Your task to perform on an android device: Open Android settings Image 0: 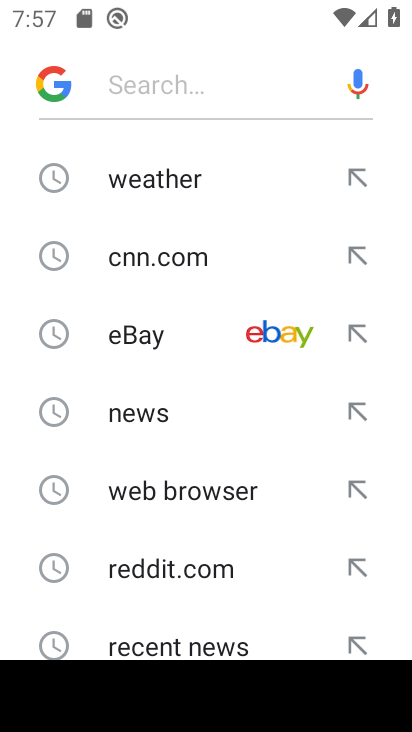
Step 0: press home button
Your task to perform on an android device: Open Android settings Image 1: 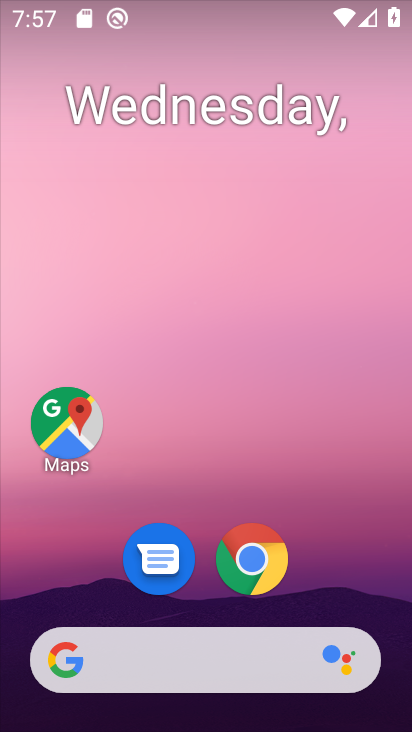
Step 1: drag from (341, 569) to (351, 89)
Your task to perform on an android device: Open Android settings Image 2: 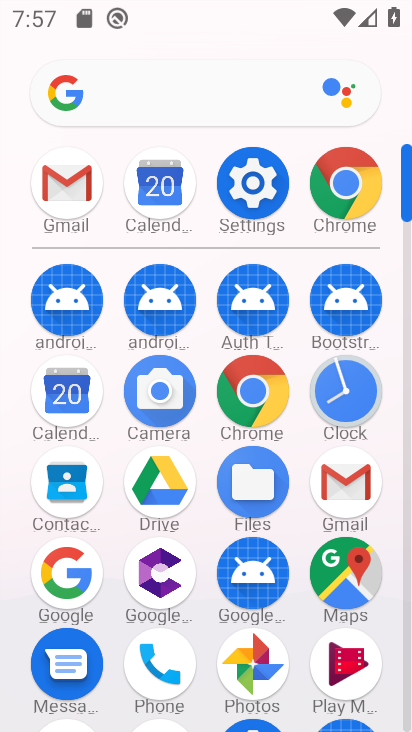
Step 2: click (252, 192)
Your task to perform on an android device: Open Android settings Image 3: 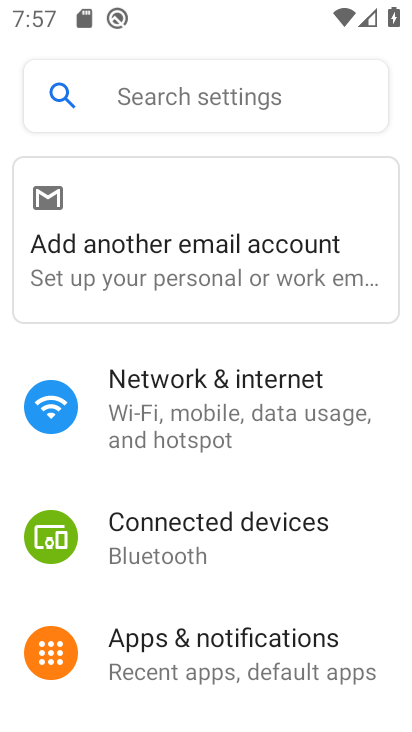
Step 3: drag from (363, 602) to (337, 185)
Your task to perform on an android device: Open Android settings Image 4: 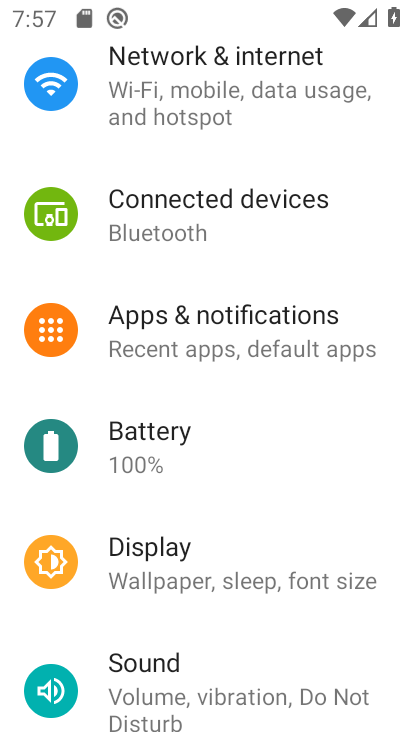
Step 4: drag from (319, 507) to (355, 203)
Your task to perform on an android device: Open Android settings Image 5: 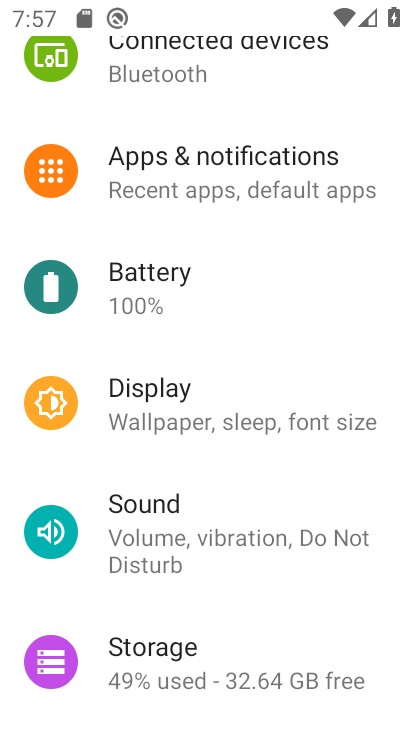
Step 5: drag from (255, 591) to (297, 276)
Your task to perform on an android device: Open Android settings Image 6: 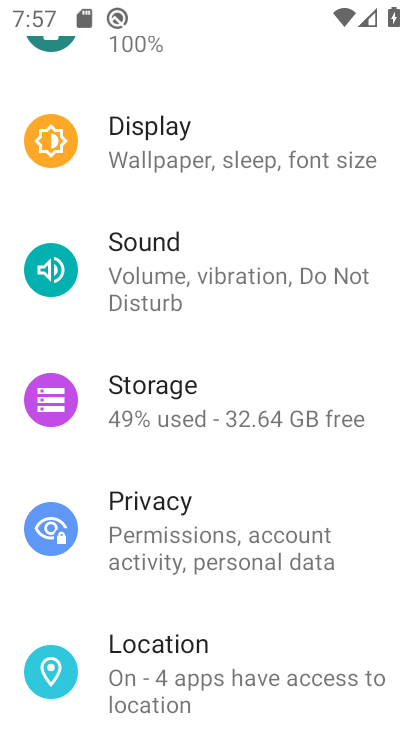
Step 6: drag from (317, 607) to (303, 208)
Your task to perform on an android device: Open Android settings Image 7: 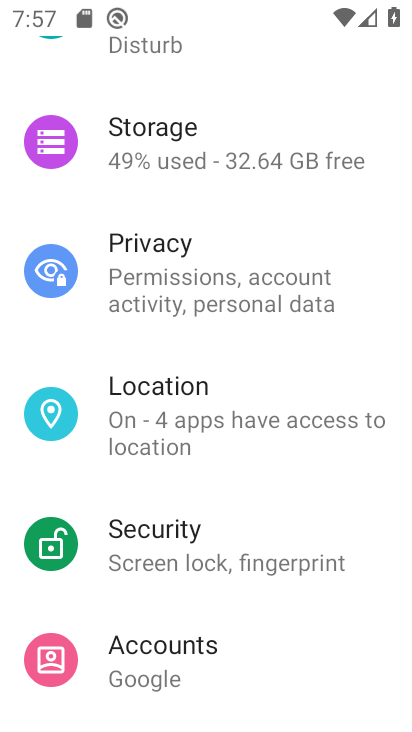
Step 7: drag from (308, 639) to (357, 284)
Your task to perform on an android device: Open Android settings Image 8: 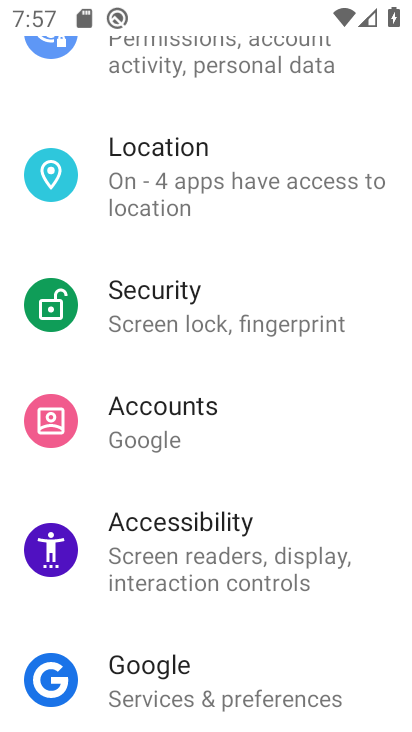
Step 8: drag from (297, 627) to (345, 269)
Your task to perform on an android device: Open Android settings Image 9: 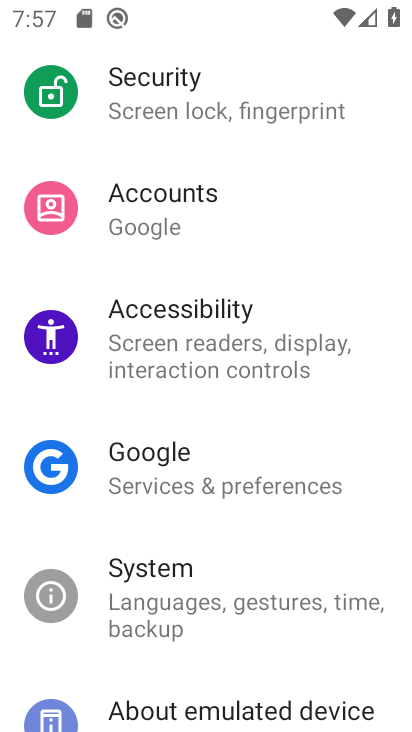
Step 9: drag from (320, 637) to (357, 206)
Your task to perform on an android device: Open Android settings Image 10: 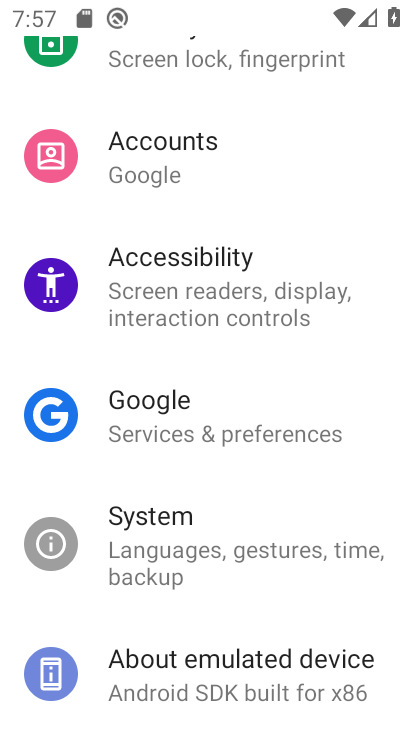
Step 10: click (246, 683)
Your task to perform on an android device: Open Android settings Image 11: 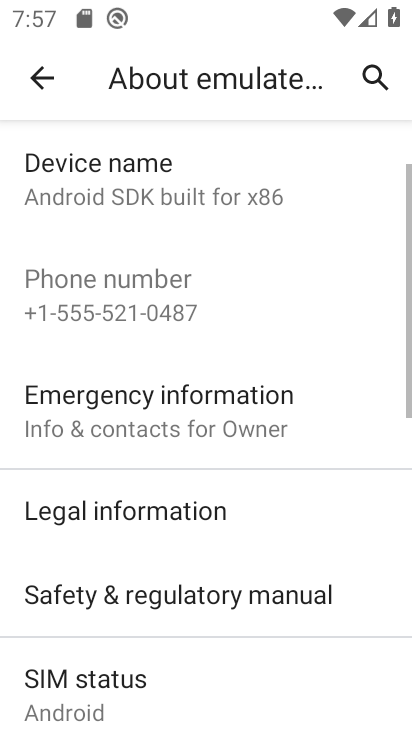
Step 11: drag from (336, 532) to (351, 224)
Your task to perform on an android device: Open Android settings Image 12: 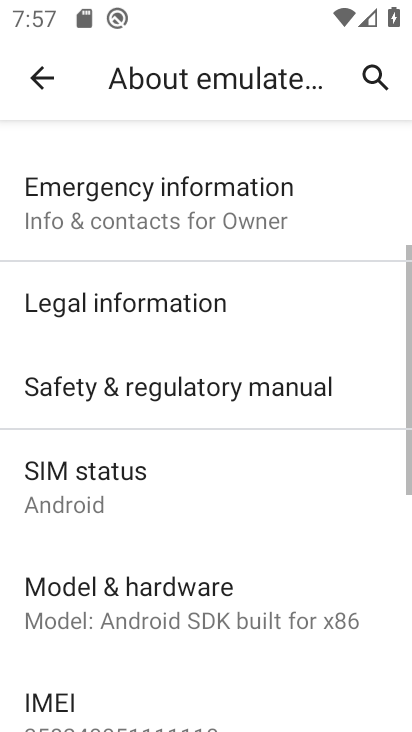
Step 12: drag from (297, 514) to (318, 213)
Your task to perform on an android device: Open Android settings Image 13: 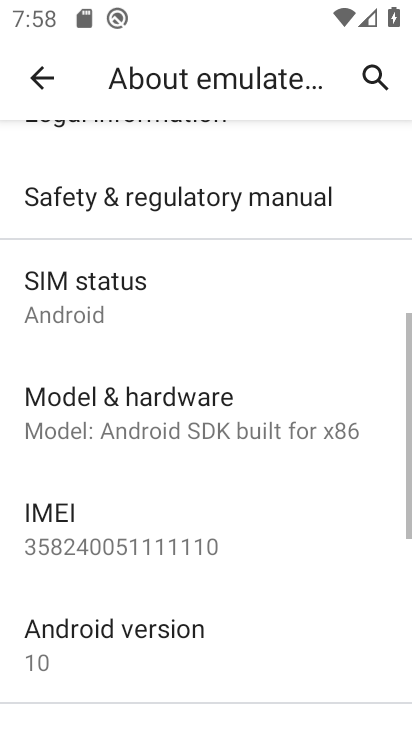
Step 13: drag from (266, 478) to (319, 261)
Your task to perform on an android device: Open Android settings Image 14: 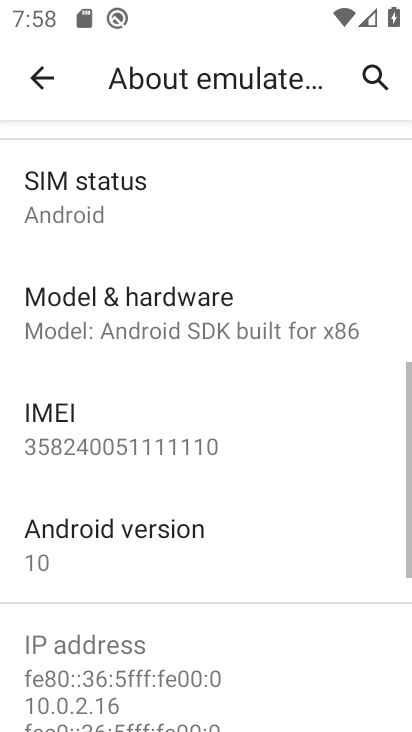
Step 14: click (156, 544)
Your task to perform on an android device: Open Android settings Image 15: 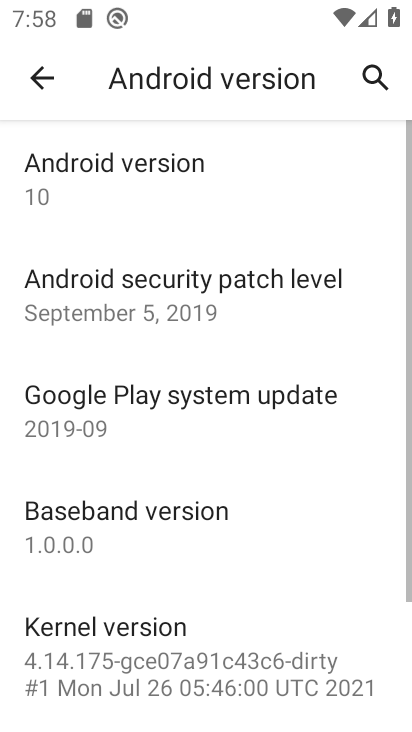
Step 15: task complete